Your task to perform on an android device: open app "Instagram" Image 0: 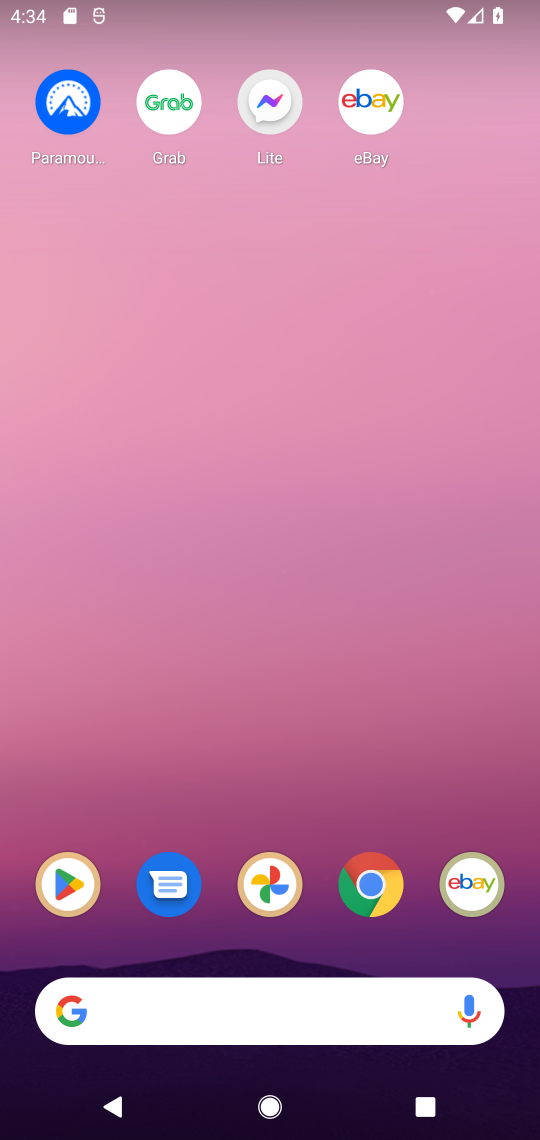
Step 0: click (54, 907)
Your task to perform on an android device: open app "Instagram" Image 1: 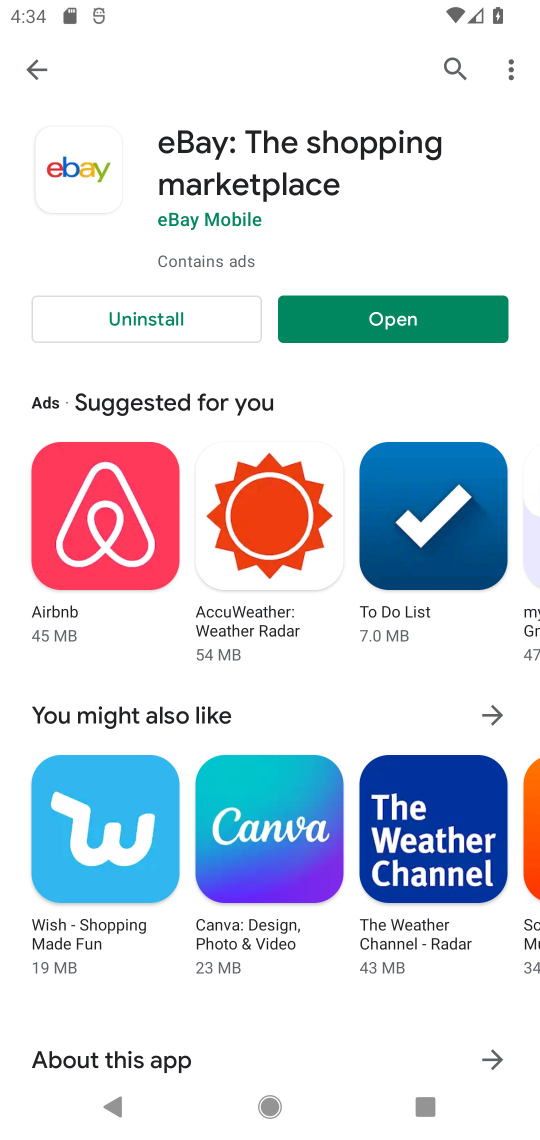
Step 1: click (458, 65)
Your task to perform on an android device: open app "Instagram" Image 2: 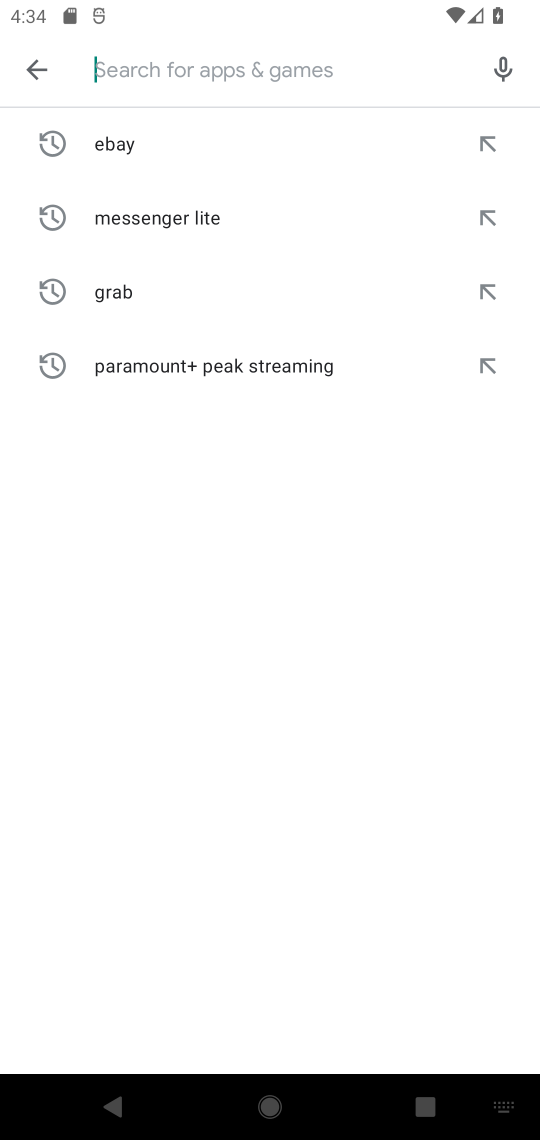
Step 2: type "Instagram"
Your task to perform on an android device: open app "Instagram" Image 3: 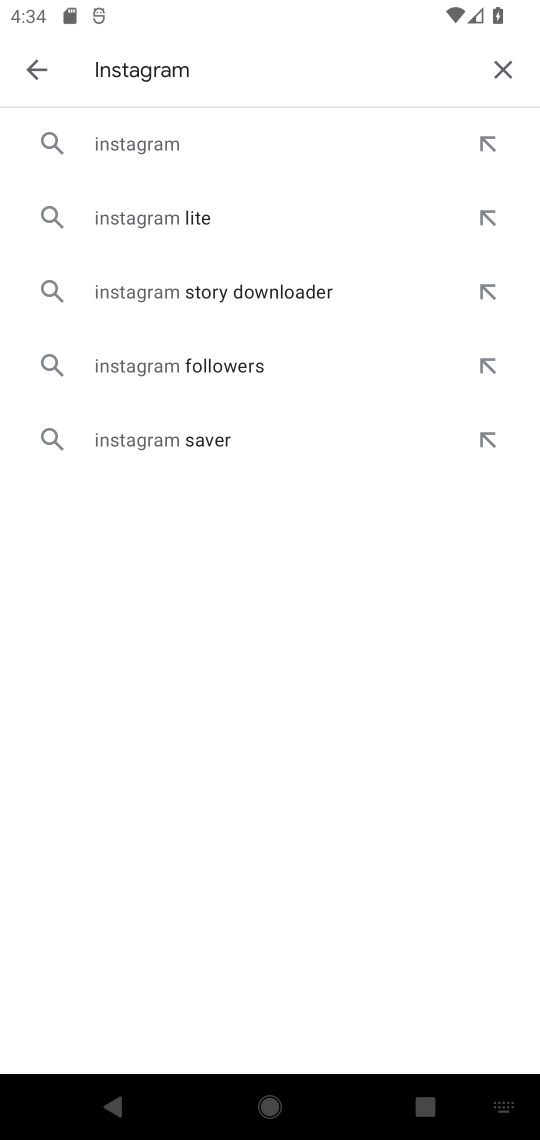
Step 3: click (153, 153)
Your task to perform on an android device: open app "Instagram" Image 4: 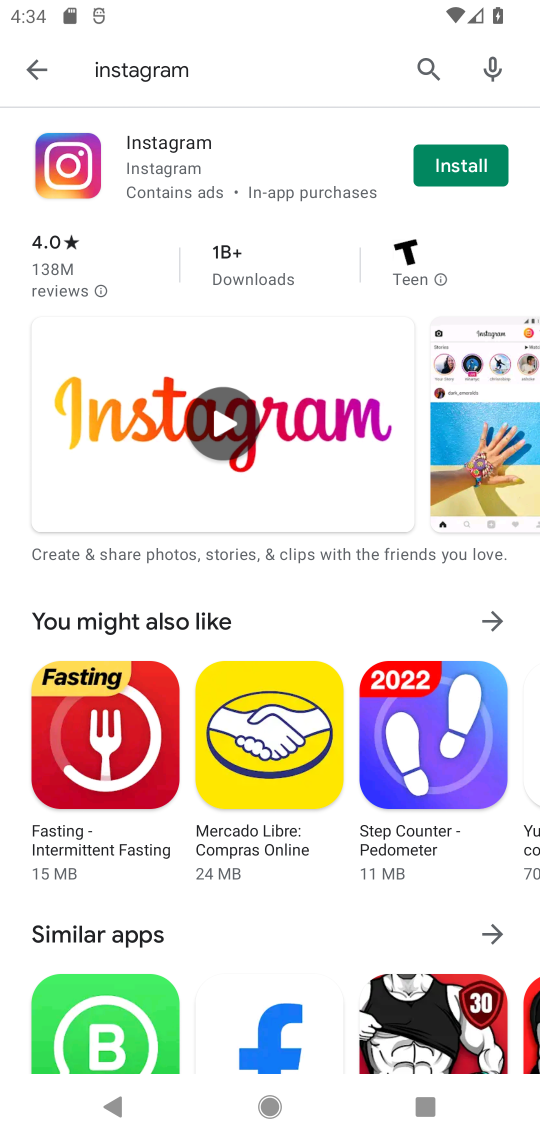
Step 4: task complete